Your task to perform on an android device: Show me popular games on the Play Store Image 0: 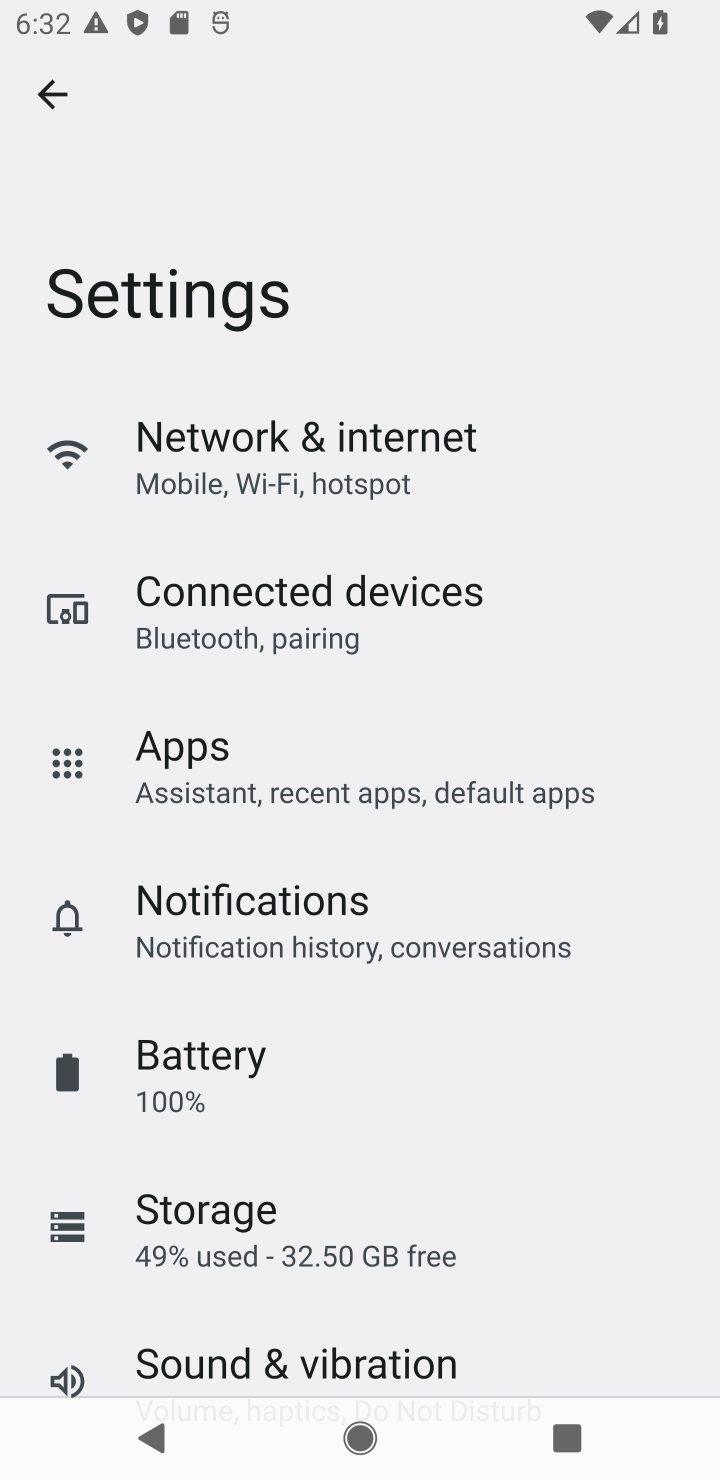
Step 0: press back button
Your task to perform on an android device: Show me popular games on the Play Store Image 1: 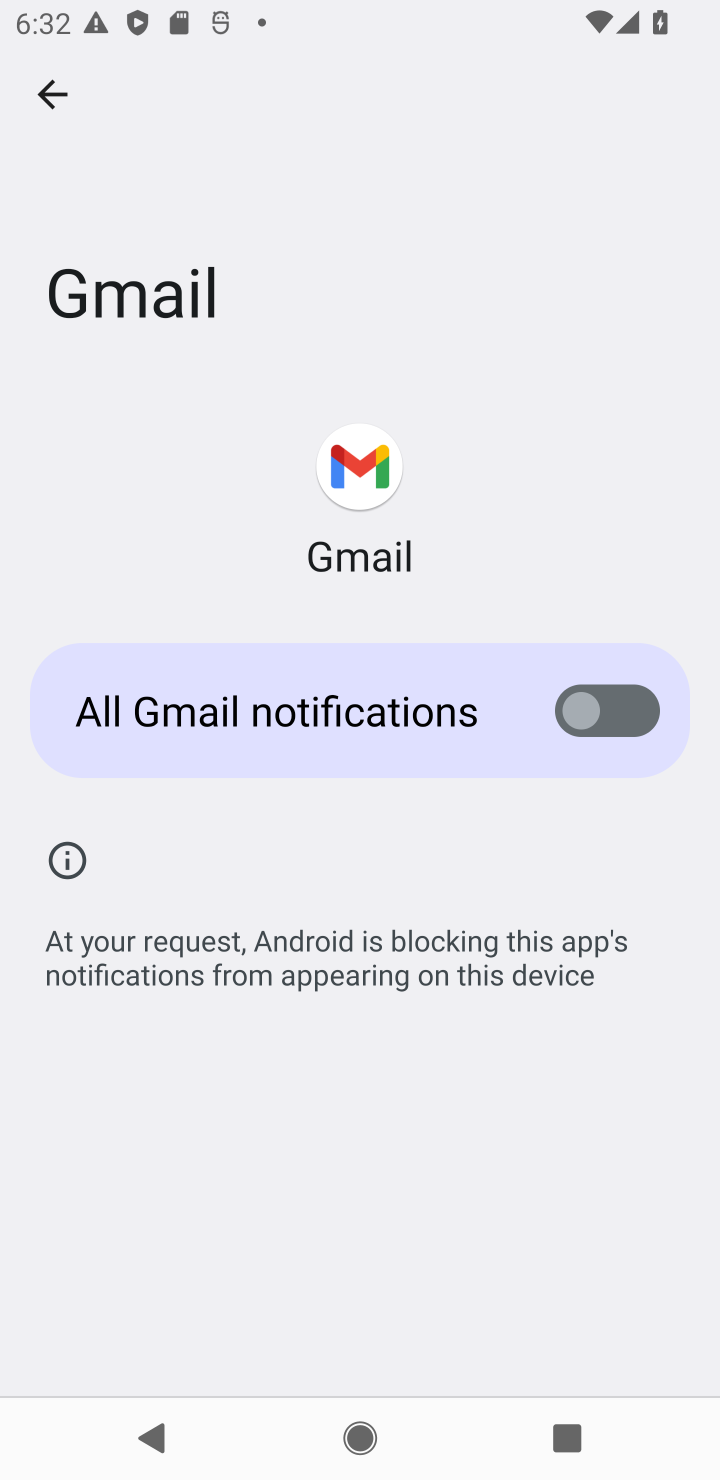
Step 1: press back button
Your task to perform on an android device: Show me popular games on the Play Store Image 2: 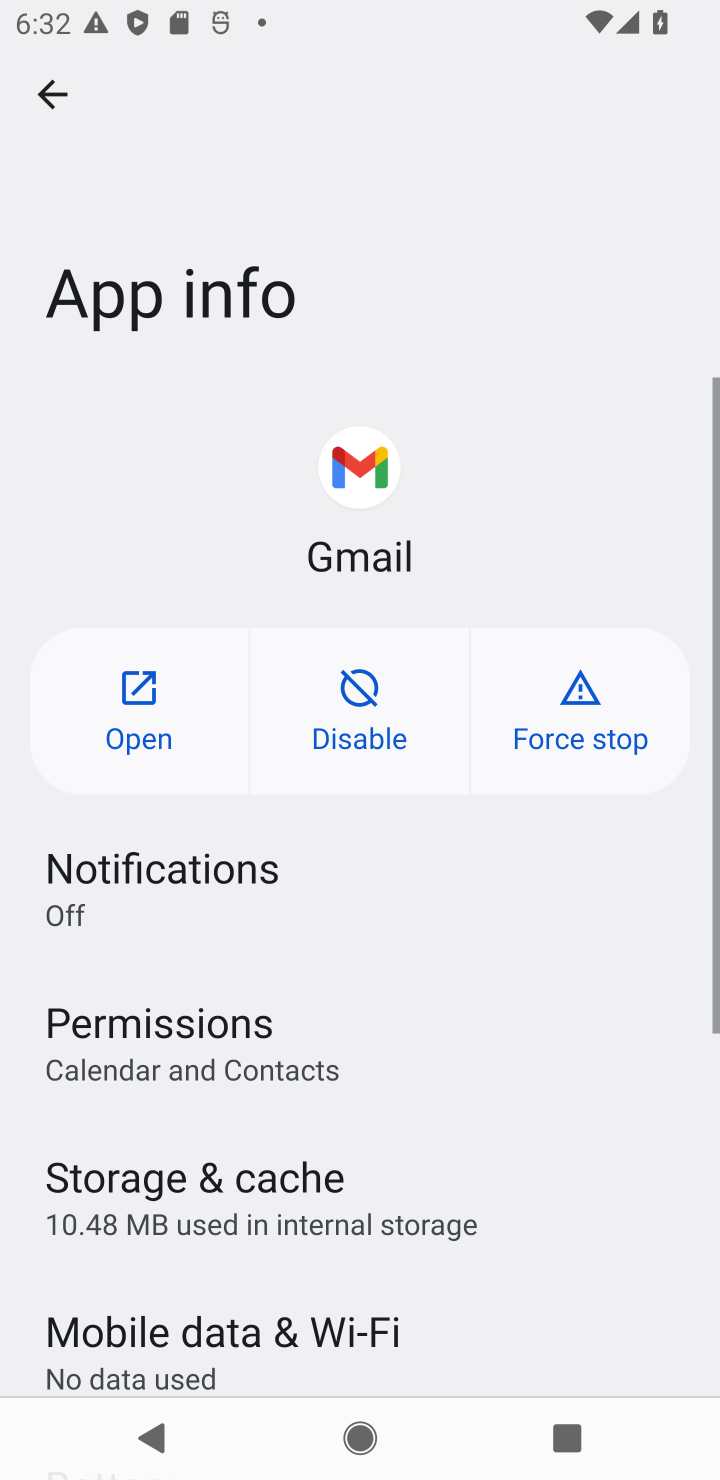
Step 2: press home button
Your task to perform on an android device: Show me popular games on the Play Store Image 3: 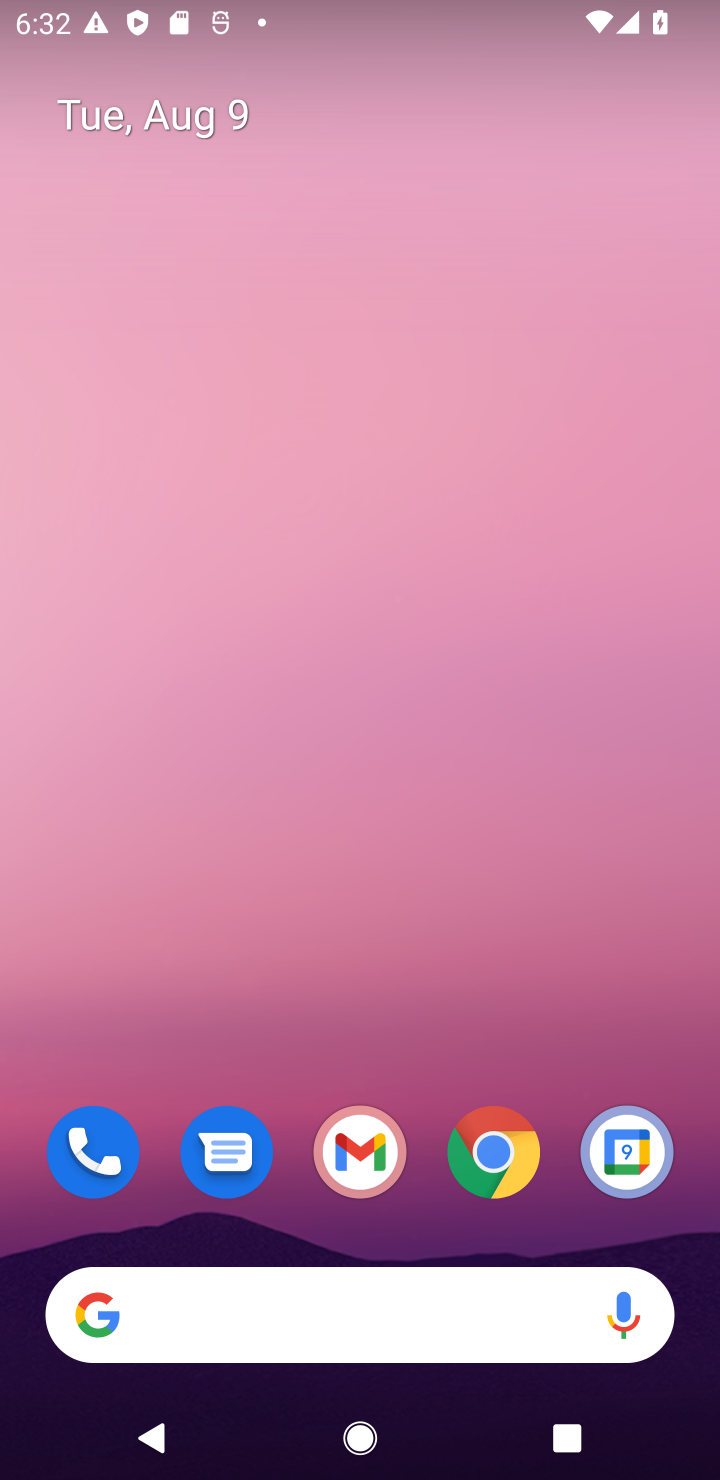
Step 3: drag from (408, 1259) to (589, 99)
Your task to perform on an android device: Show me popular games on the Play Store Image 4: 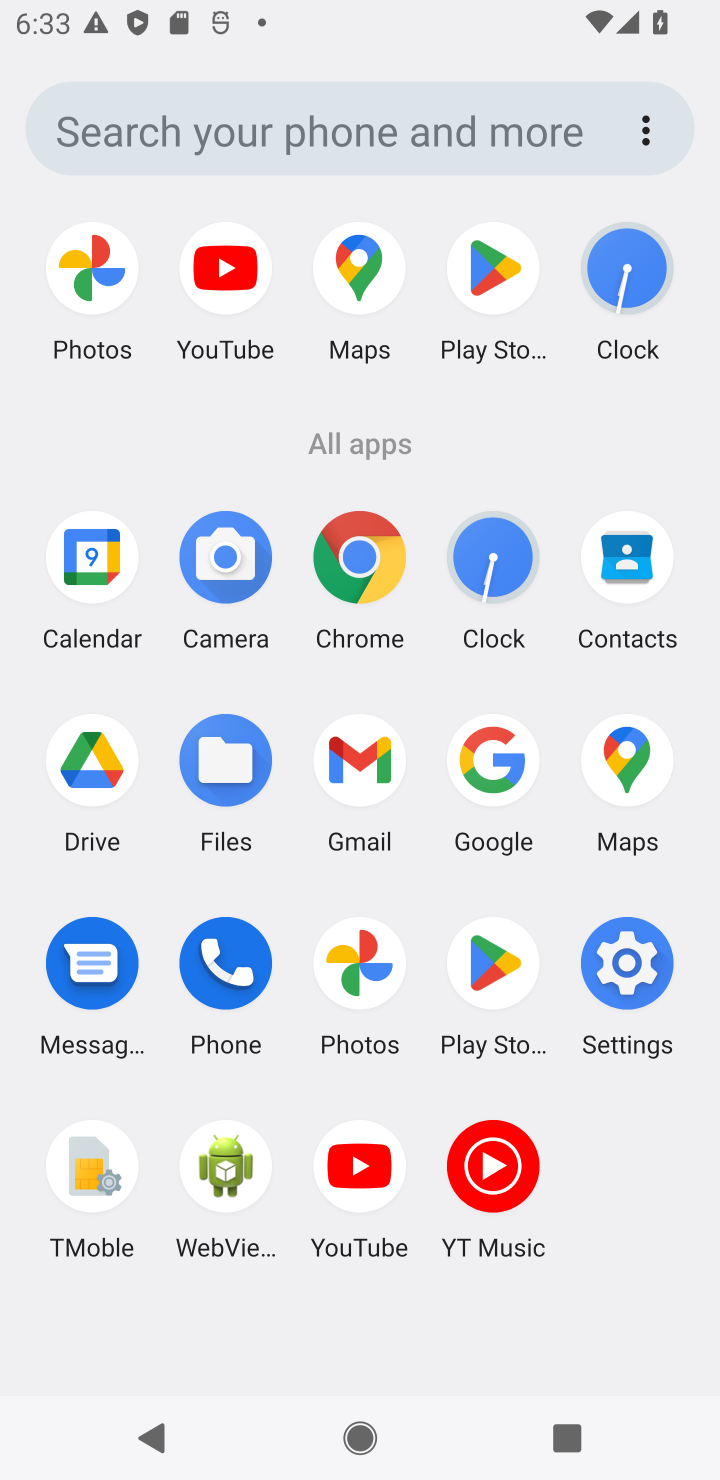
Step 4: click (484, 286)
Your task to perform on an android device: Show me popular games on the Play Store Image 5: 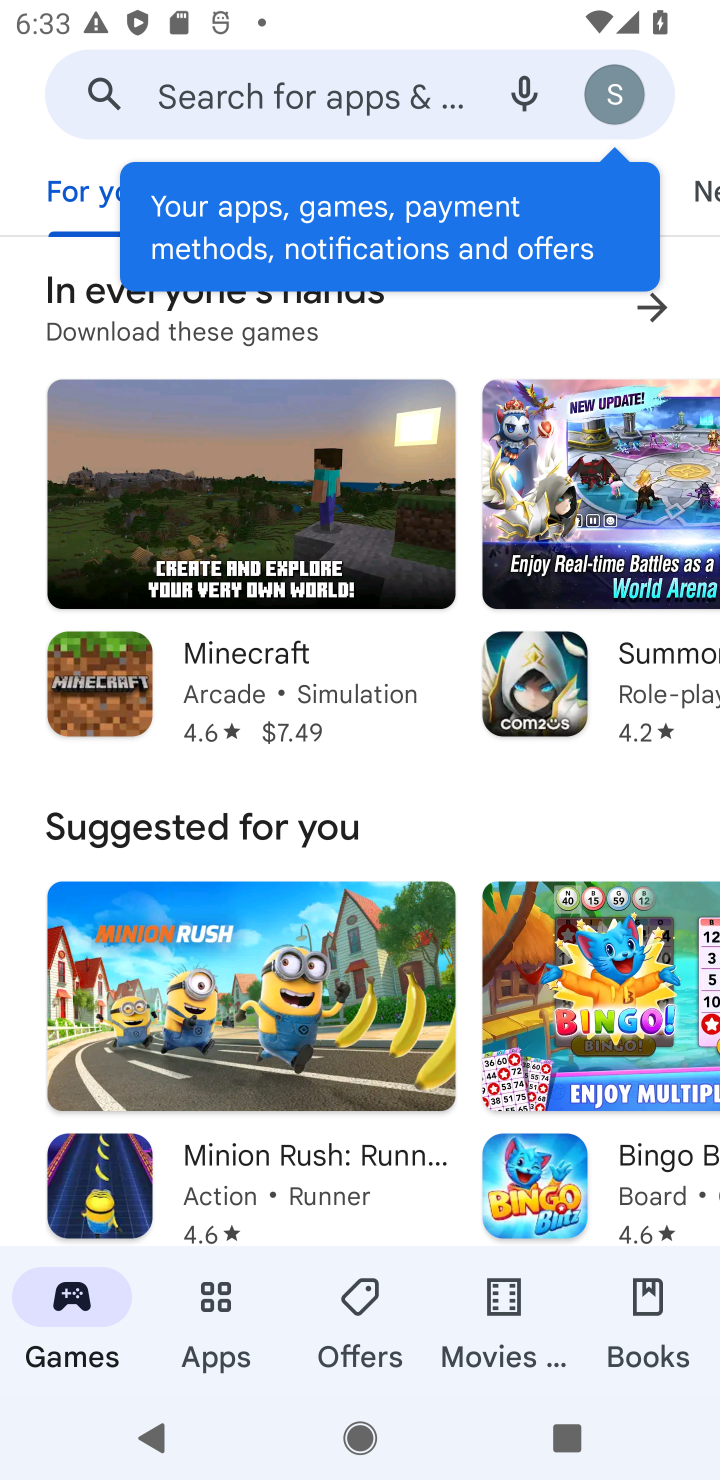
Step 5: drag from (303, 1113) to (434, 285)
Your task to perform on an android device: Show me popular games on the Play Store Image 6: 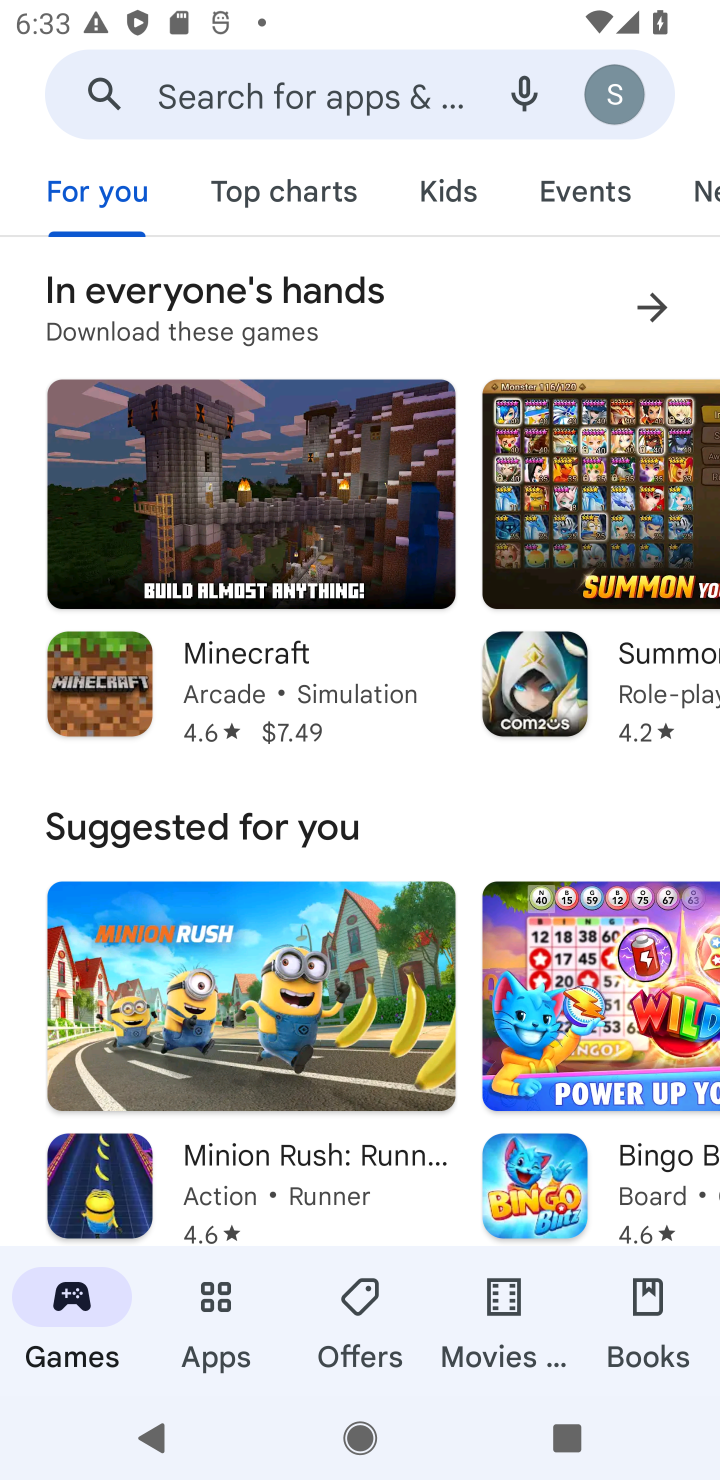
Step 6: drag from (28, 1103) to (113, 122)
Your task to perform on an android device: Show me popular games on the Play Store Image 7: 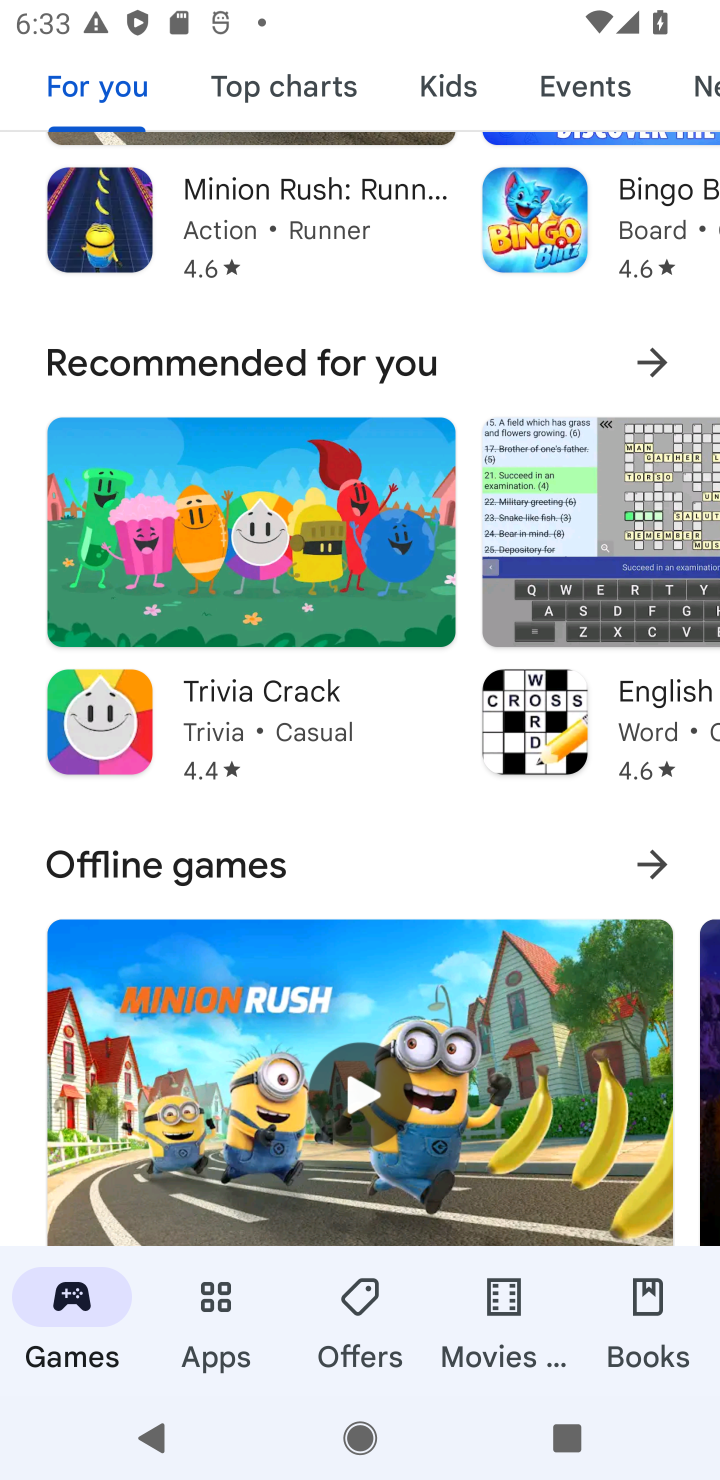
Step 7: drag from (33, 1158) to (54, 341)
Your task to perform on an android device: Show me popular games on the Play Store Image 8: 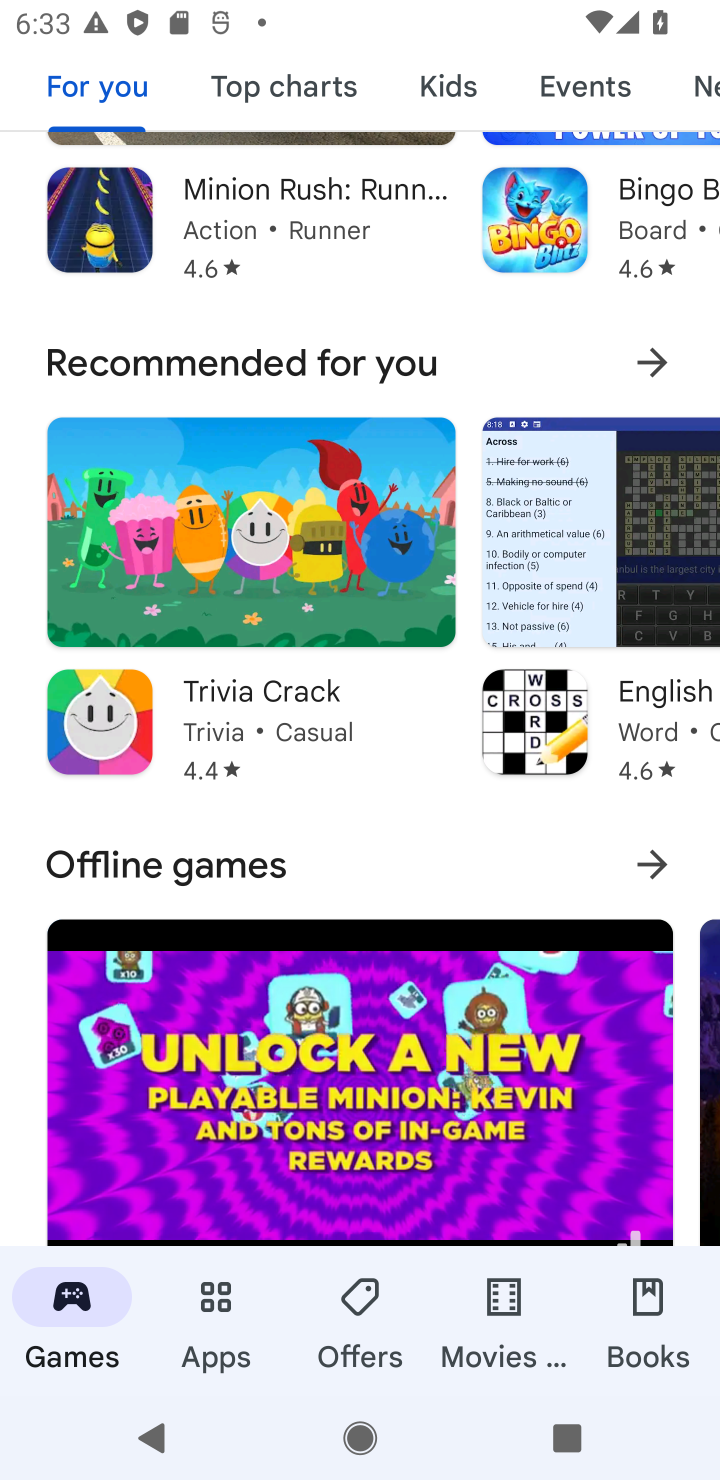
Step 8: drag from (26, 1033) to (93, 204)
Your task to perform on an android device: Show me popular games on the Play Store Image 9: 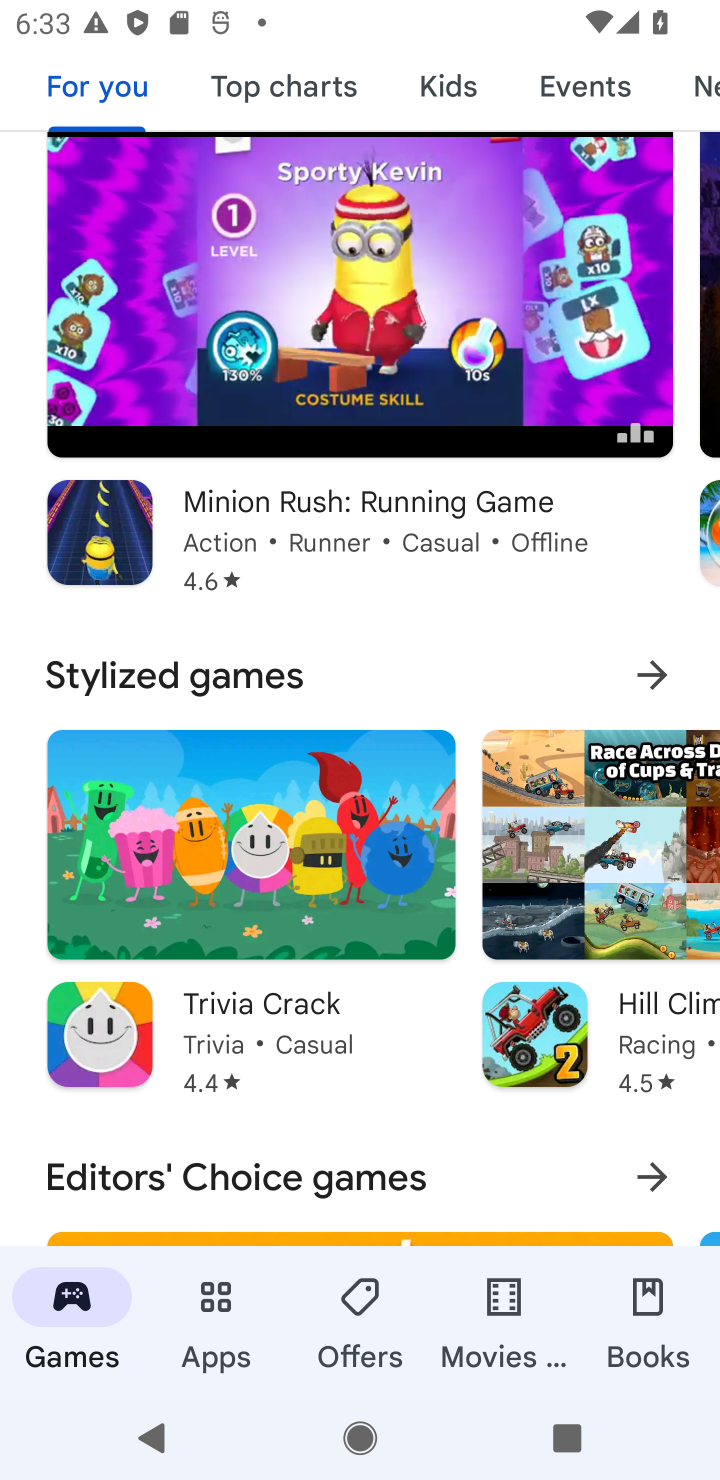
Step 9: drag from (57, 1170) to (48, 285)
Your task to perform on an android device: Show me popular games on the Play Store Image 10: 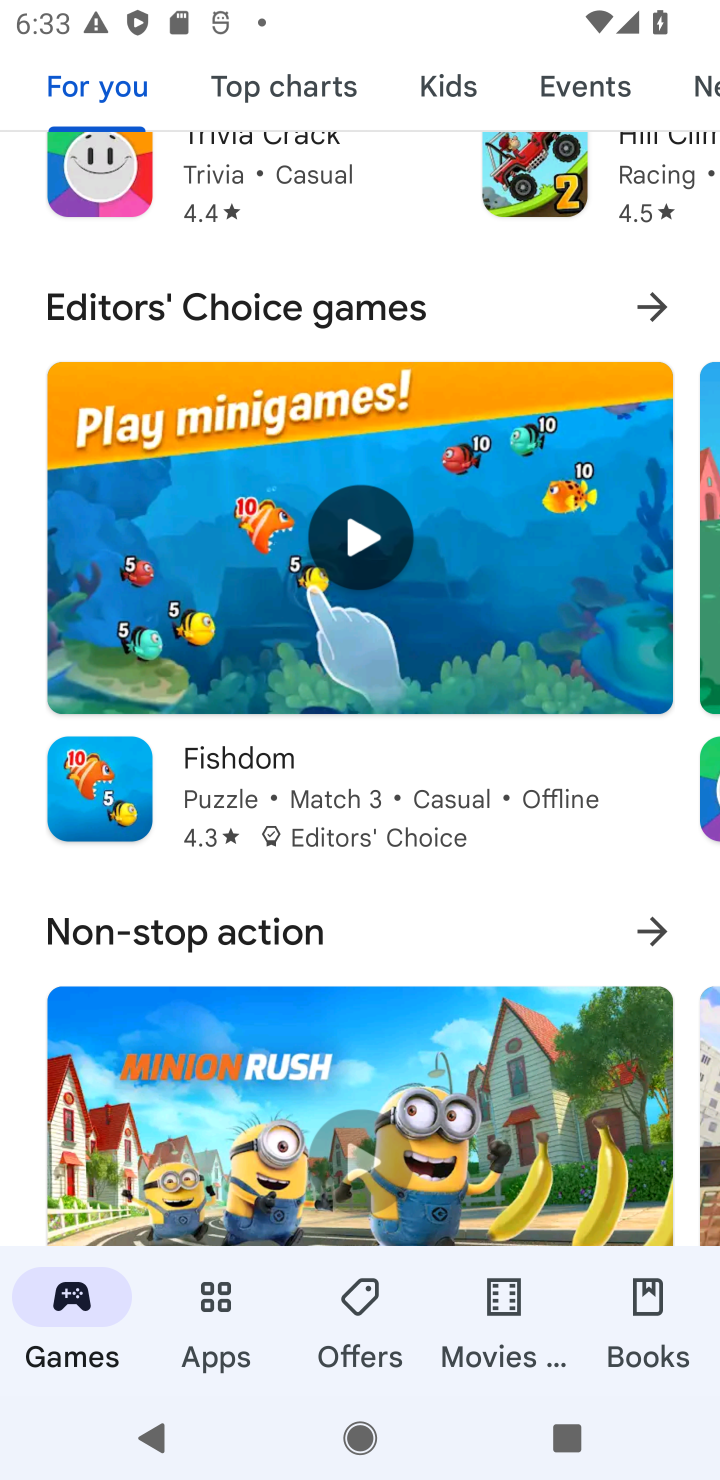
Step 10: drag from (25, 1100) to (27, 266)
Your task to perform on an android device: Show me popular games on the Play Store Image 11: 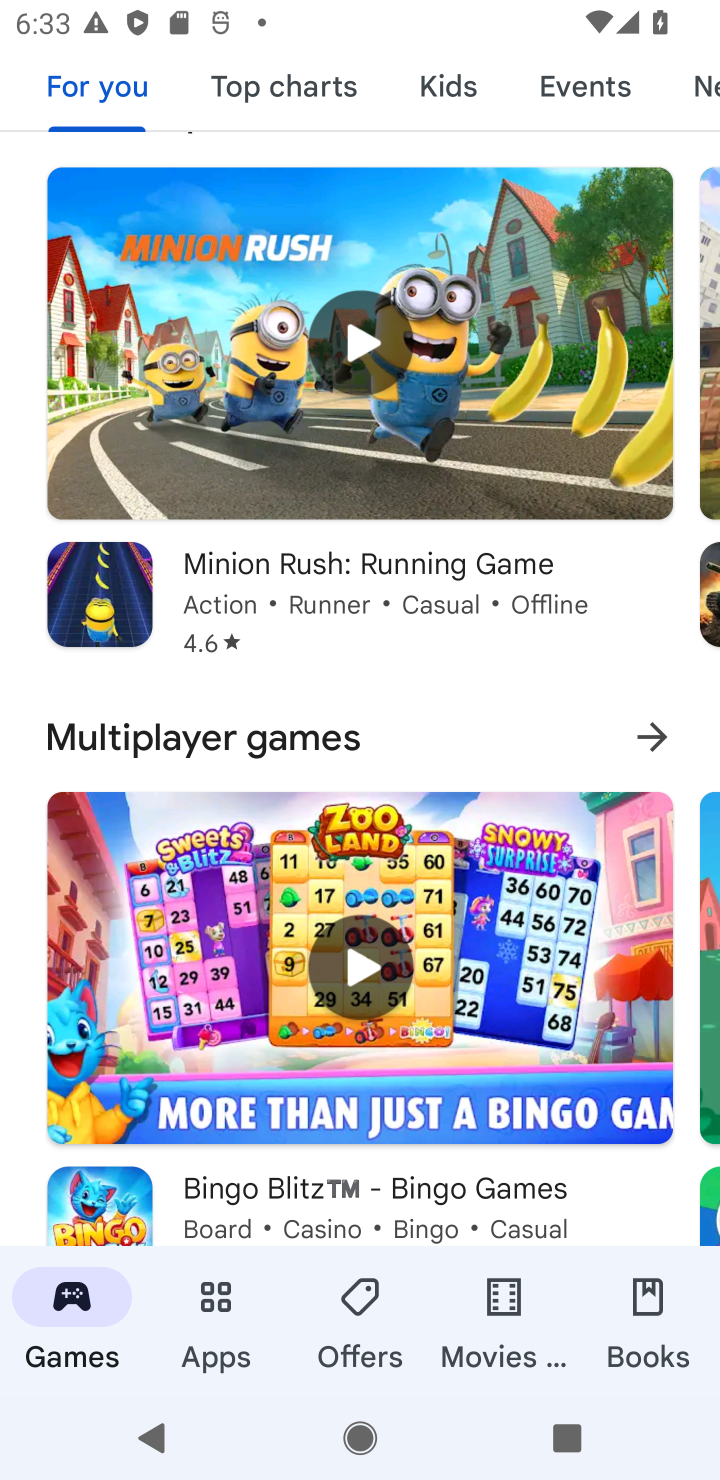
Step 11: drag from (50, 1005) to (98, 264)
Your task to perform on an android device: Show me popular games on the Play Store Image 12: 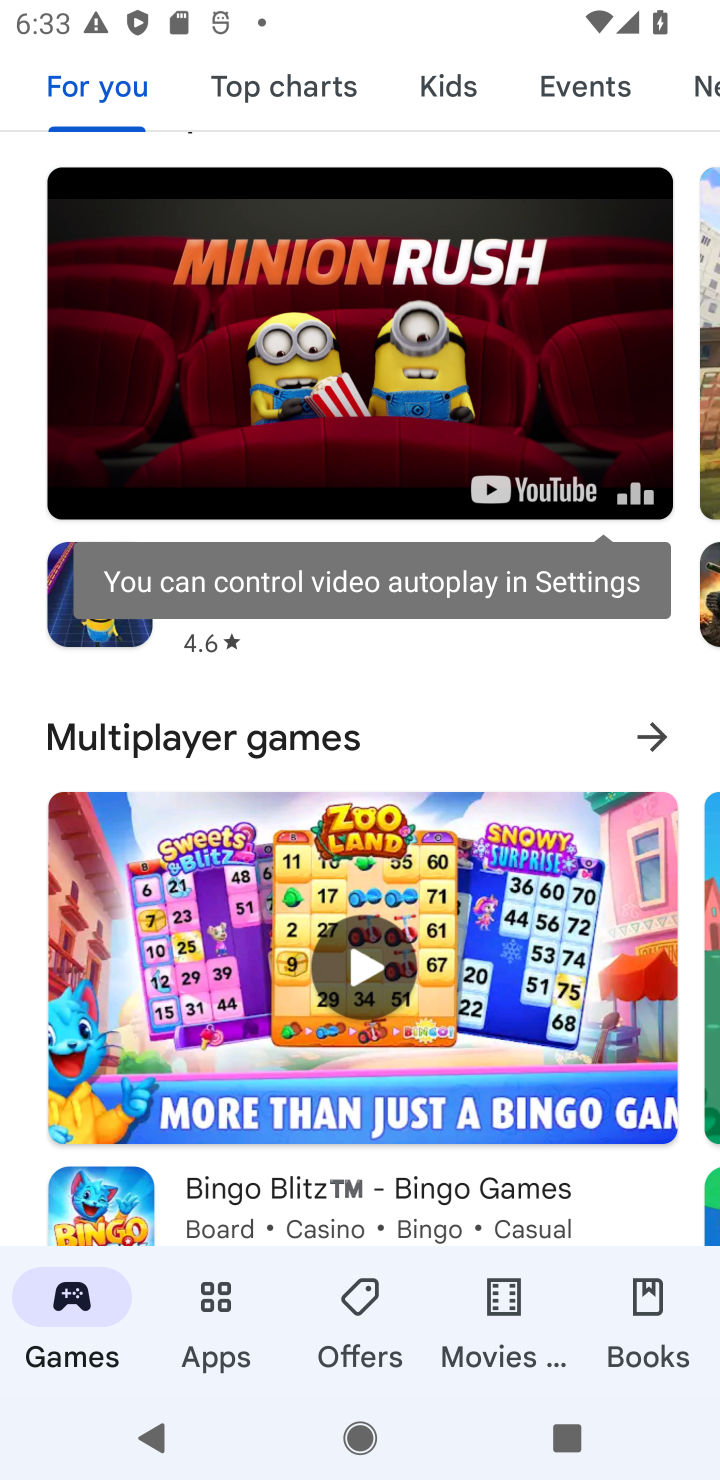
Step 12: drag from (16, 1227) to (55, 224)
Your task to perform on an android device: Show me popular games on the Play Store Image 13: 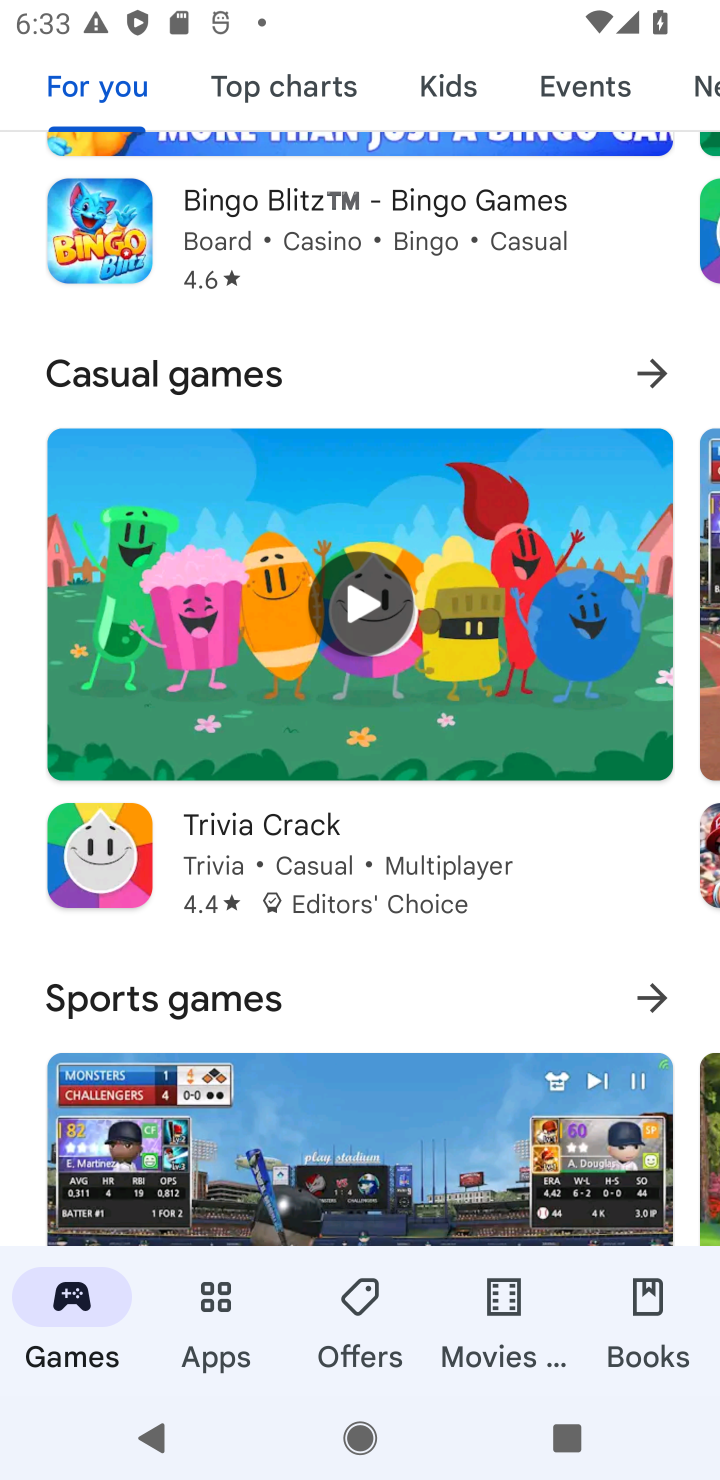
Step 13: drag from (51, 1240) to (30, 241)
Your task to perform on an android device: Show me popular games on the Play Store Image 14: 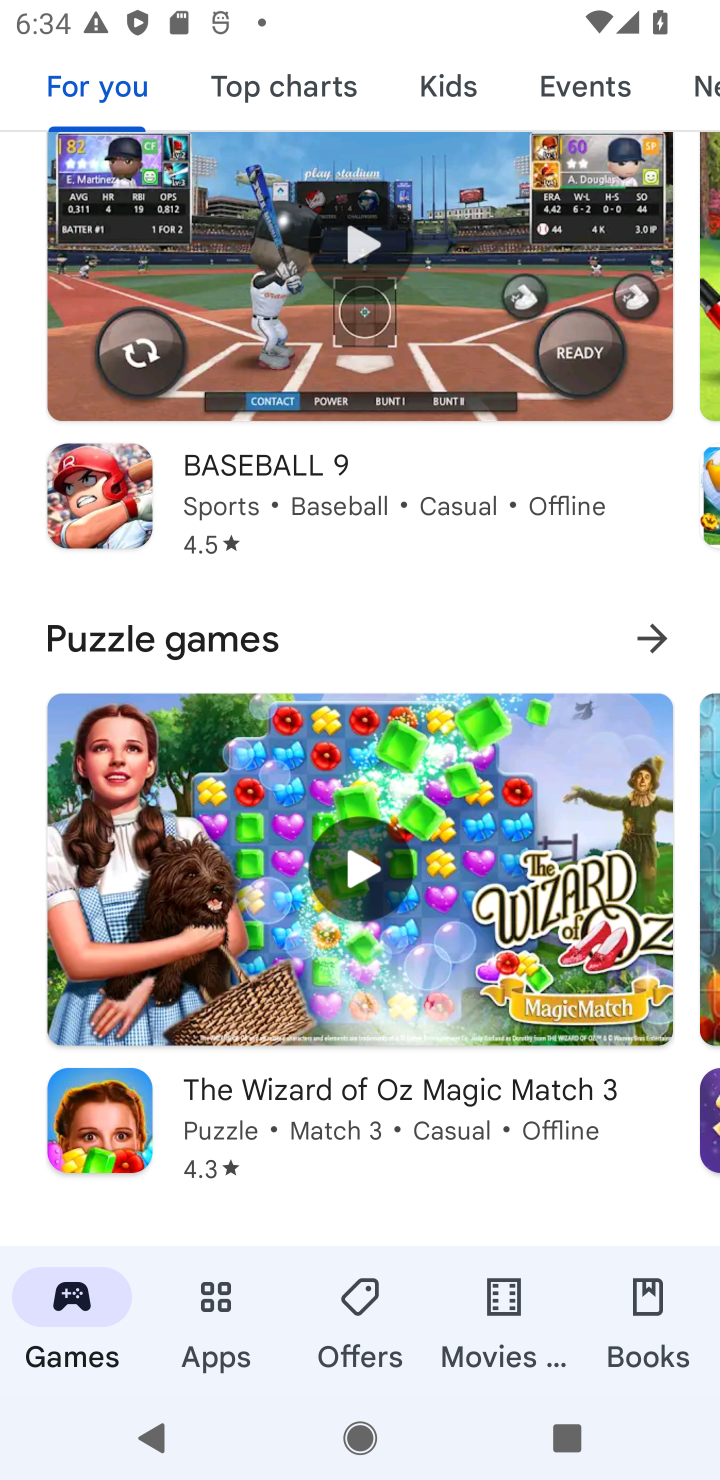
Step 14: drag from (11, 1235) to (22, 204)
Your task to perform on an android device: Show me popular games on the Play Store Image 15: 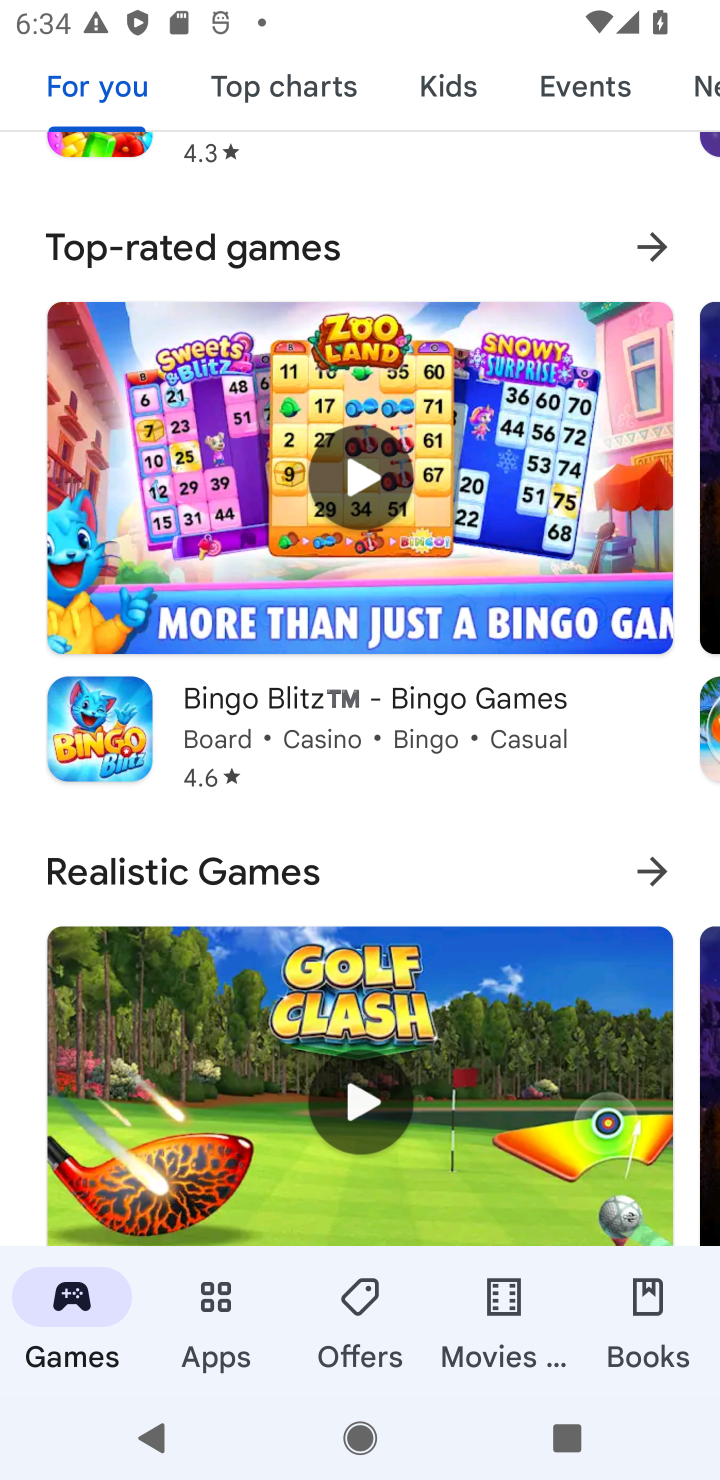
Step 15: drag from (12, 1123) to (50, 184)
Your task to perform on an android device: Show me popular games on the Play Store Image 16: 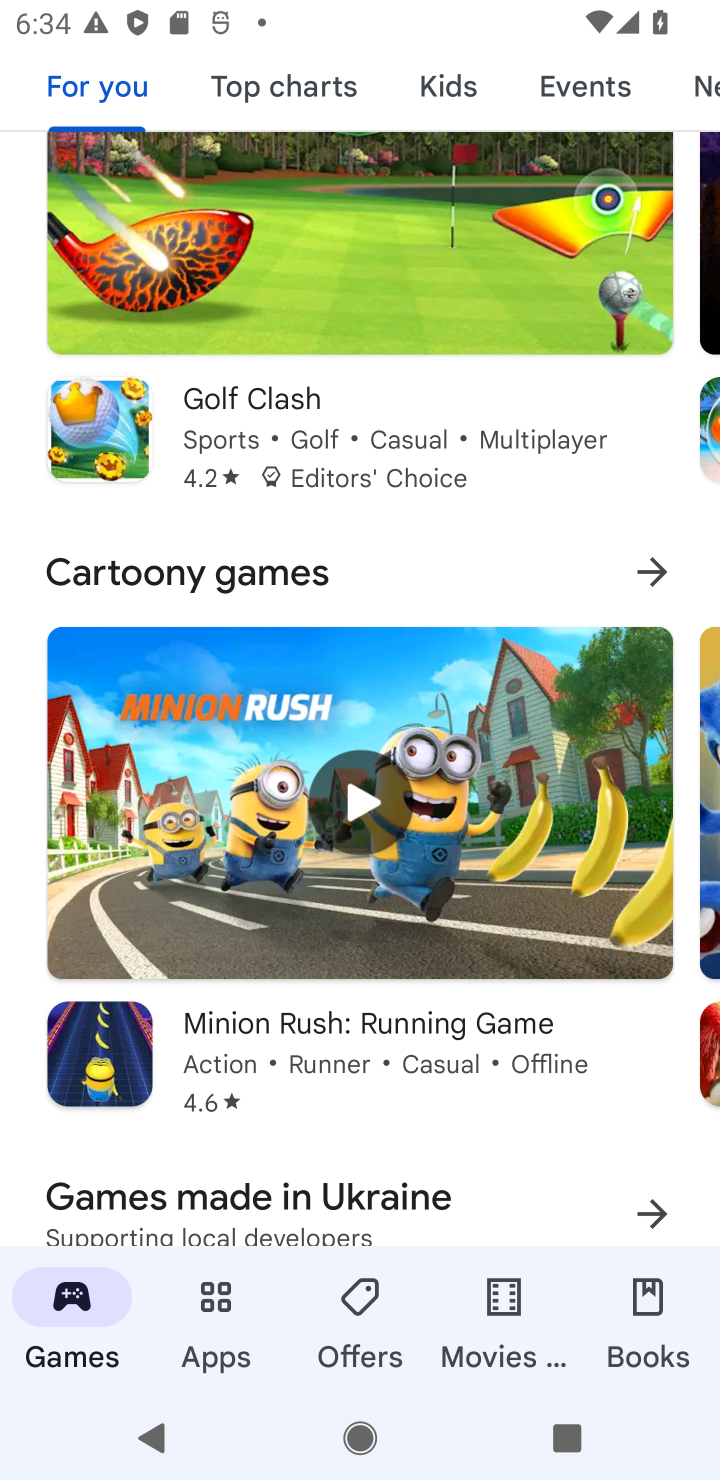
Step 16: drag from (28, 1192) to (28, 231)
Your task to perform on an android device: Show me popular games on the Play Store Image 17: 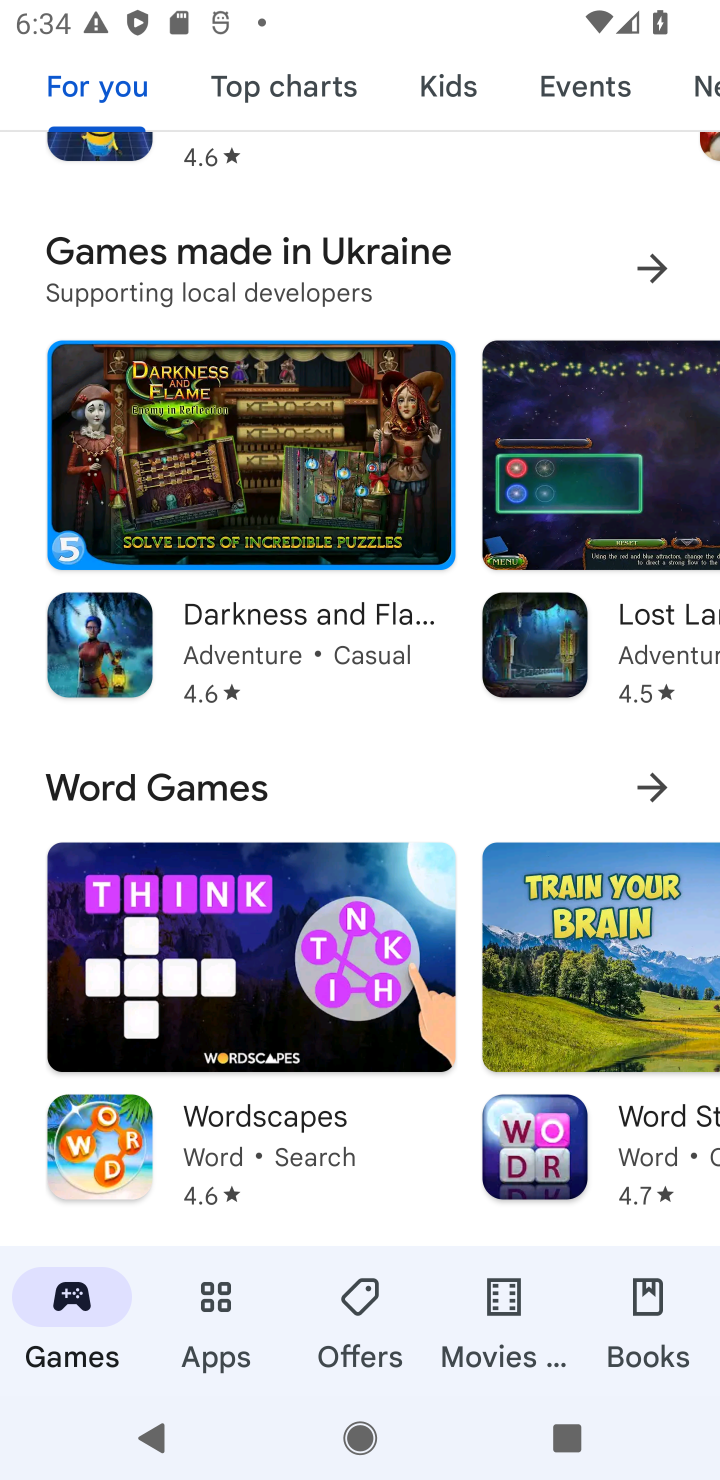
Step 17: drag from (29, 1060) to (73, 296)
Your task to perform on an android device: Show me popular games on the Play Store Image 18: 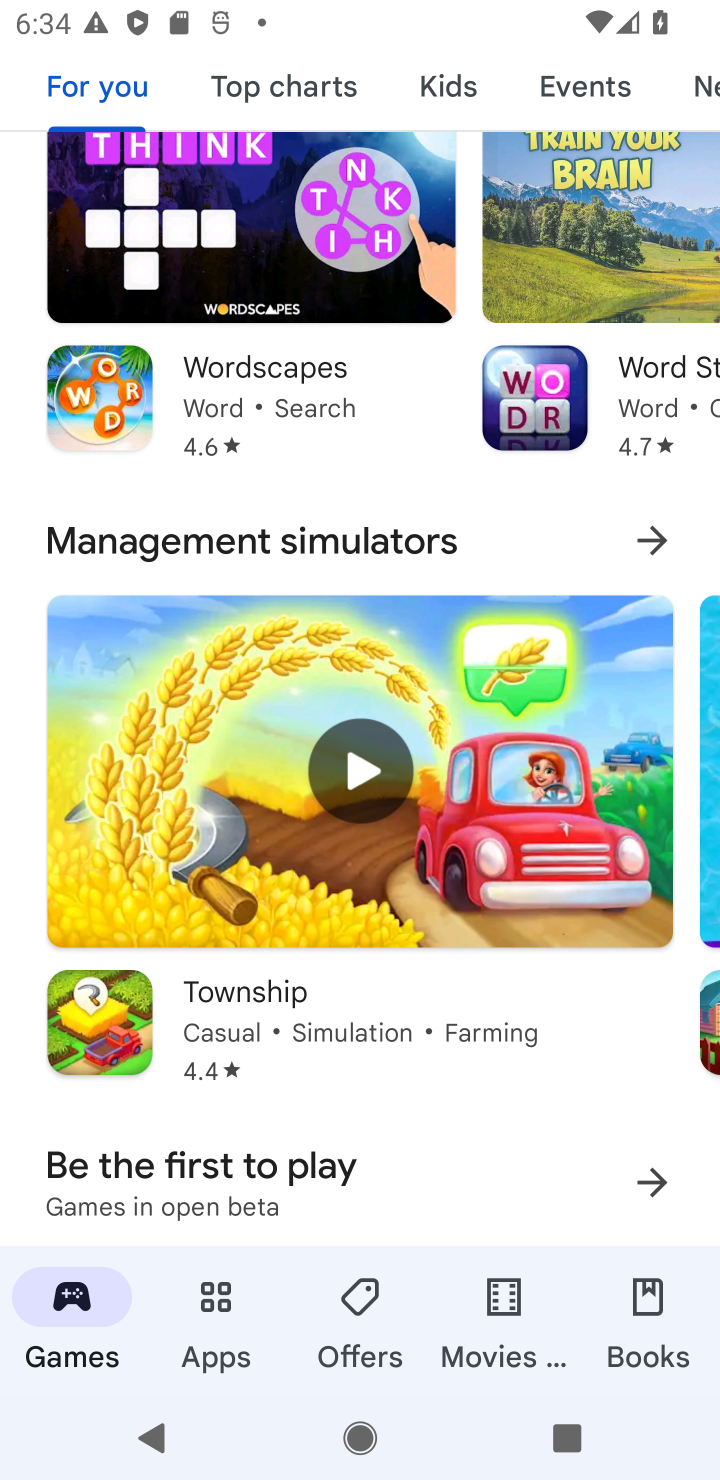
Step 18: drag from (29, 1026) to (4, 302)
Your task to perform on an android device: Show me popular games on the Play Store Image 19: 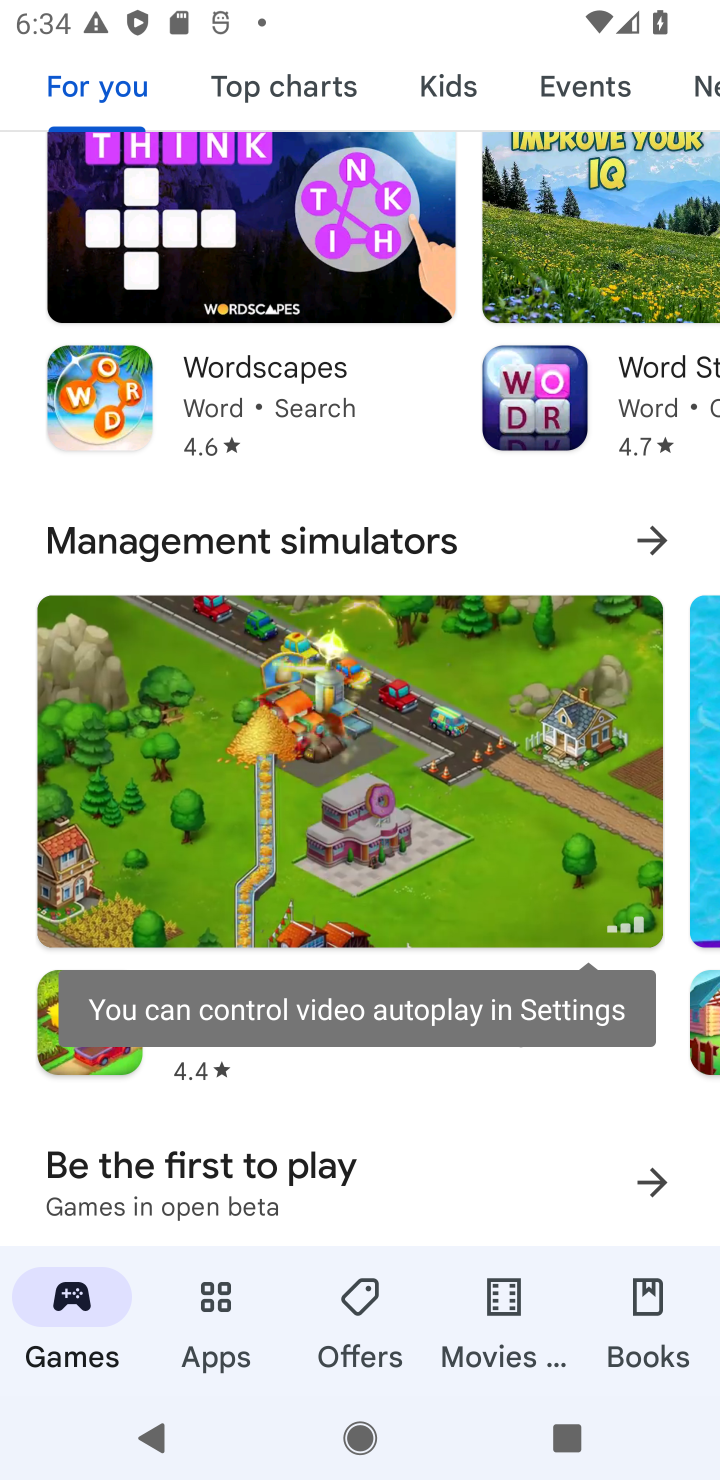
Step 19: drag from (16, 1014) to (36, 306)
Your task to perform on an android device: Show me popular games on the Play Store Image 20: 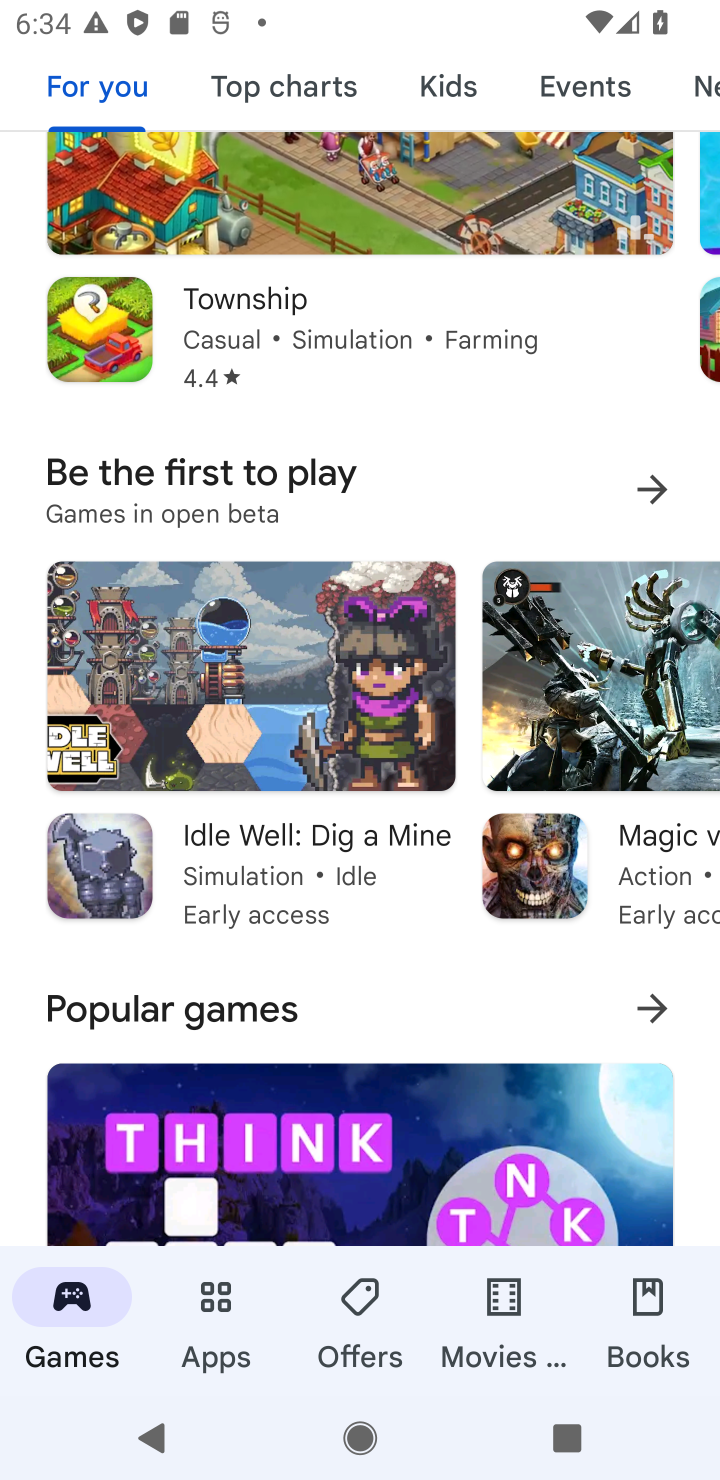
Step 20: drag from (24, 1217) to (43, 878)
Your task to perform on an android device: Show me popular games on the Play Store Image 21: 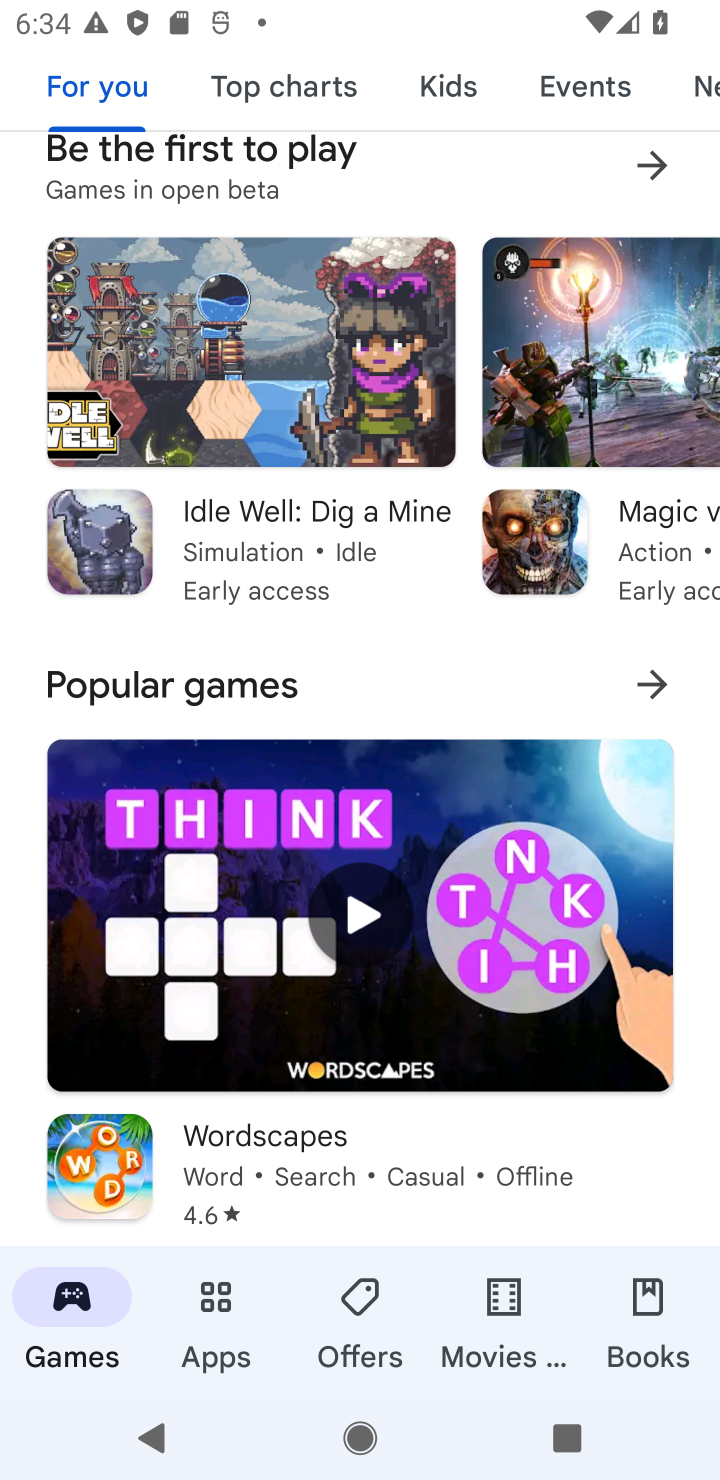
Step 21: click (658, 680)
Your task to perform on an android device: Show me popular games on the Play Store Image 22: 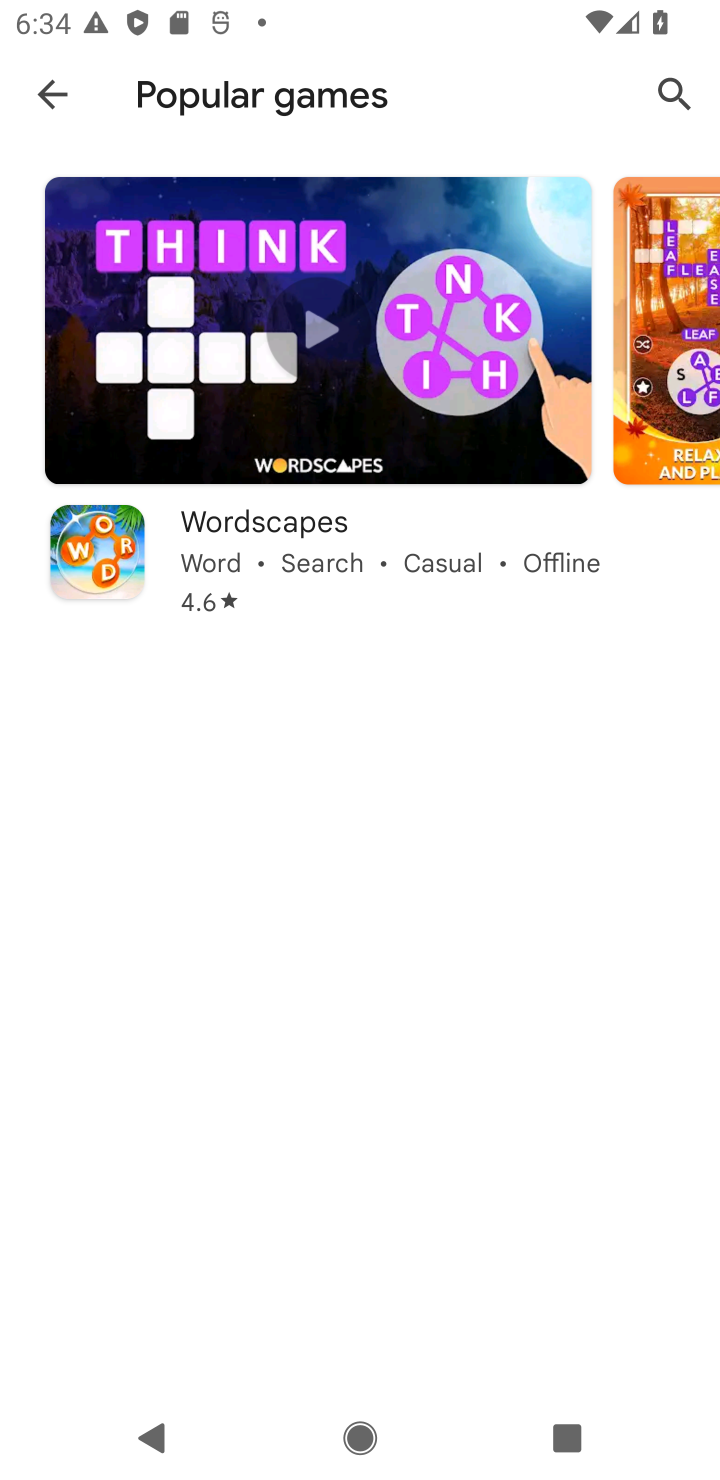
Step 22: task complete